Your task to perform on an android device: choose inbox layout in the gmail app Image 0: 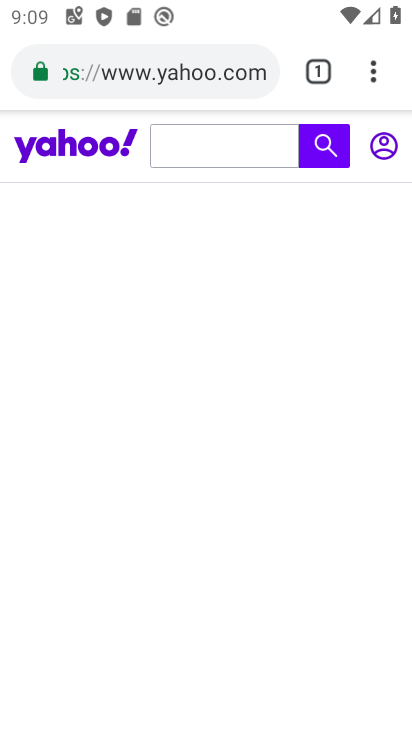
Step 0: press back button
Your task to perform on an android device: choose inbox layout in the gmail app Image 1: 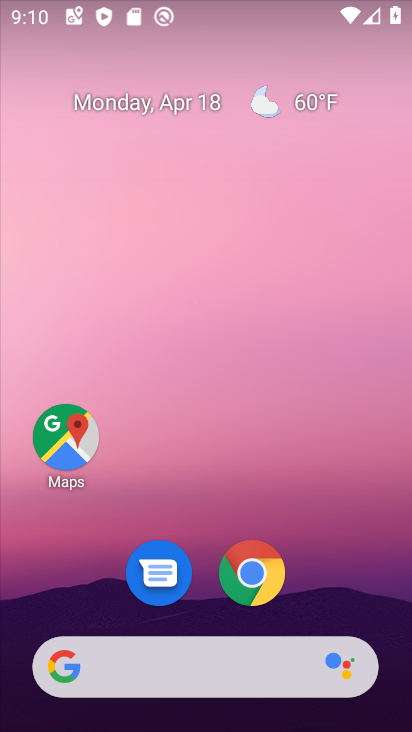
Step 1: drag from (211, 720) to (210, 113)
Your task to perform on an android device: choose inbox layout in the gmail app Image 2: 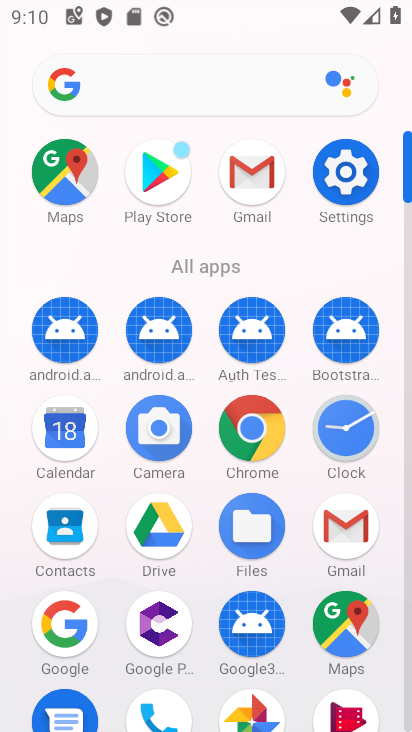
Step 2: click (347, 526)
Your task to perform on an android device: choose inbox layout in the gmail app Image 3: 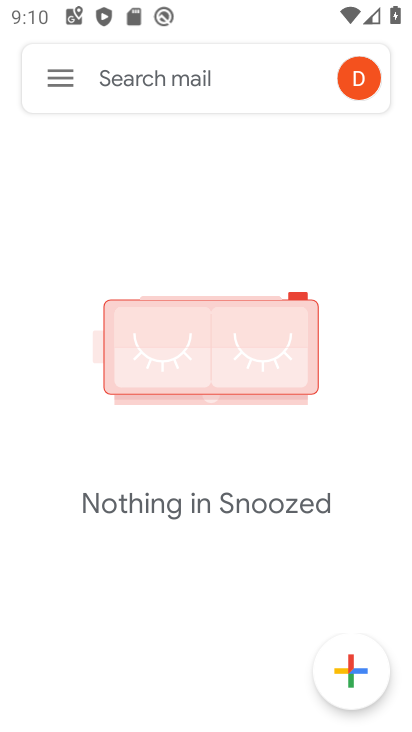
Step 3: click (68, 72)
Your task to perform on an android device: choose inbox layout in the gmail app Image 4: 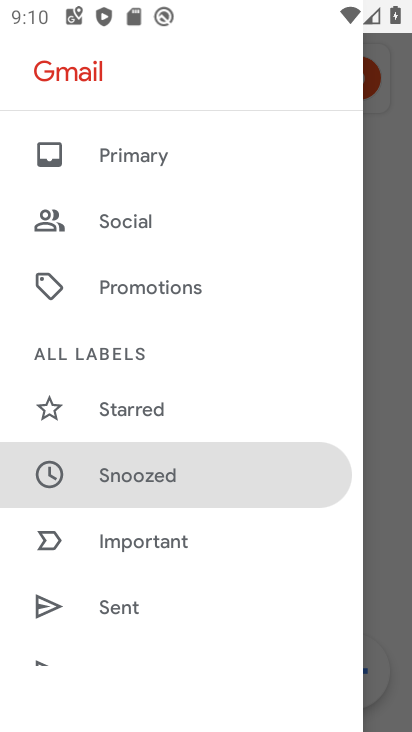
Step 4: drag from (151, 595) to (157, 201)
Your task to perform on an android device: choose inbox layout in the gmail app Image 5: 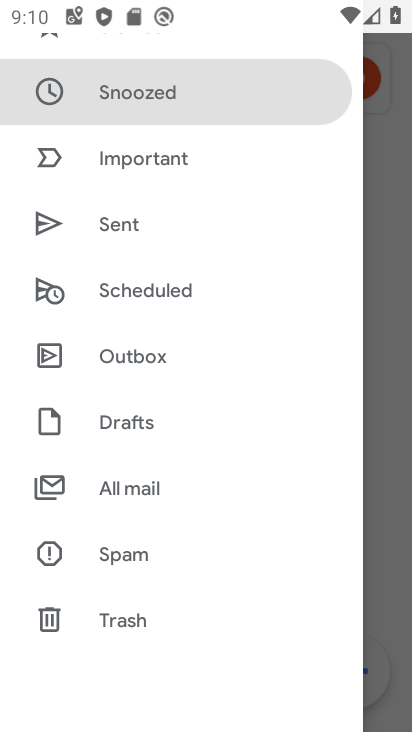
Step 5: drag from (200, 598) to (205, 280)
Your task to perform on an android device: choose inbox layout in the gmail app Image 6: 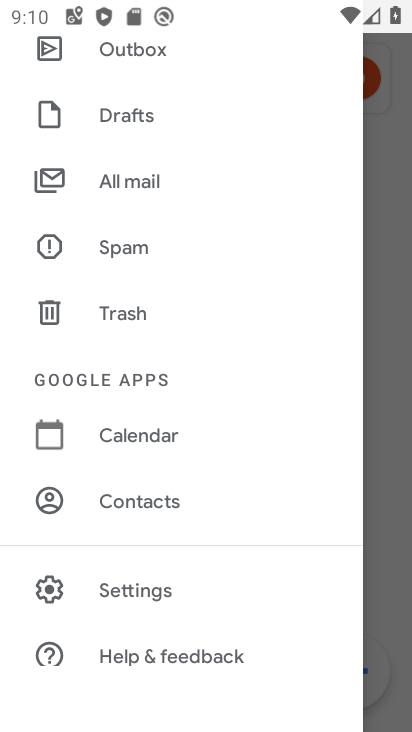
Step 6: click (136, 590)
Your task to perform on an android device: choose inbox layout in the gmail app Image 7: 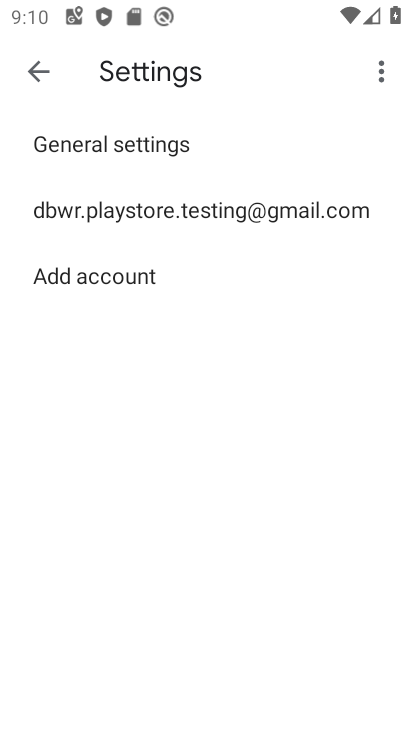
Step 7: click (218, 208)
Your task to perform on an android device: choose inbox layout in the gmail app Image 8: 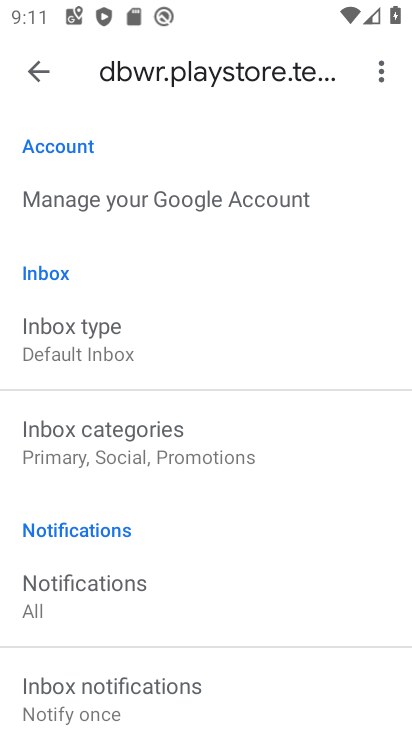
Step 8: click (80, 336)
Your task to perform on an android device: choose inbox layout in the gmail app Image 9: 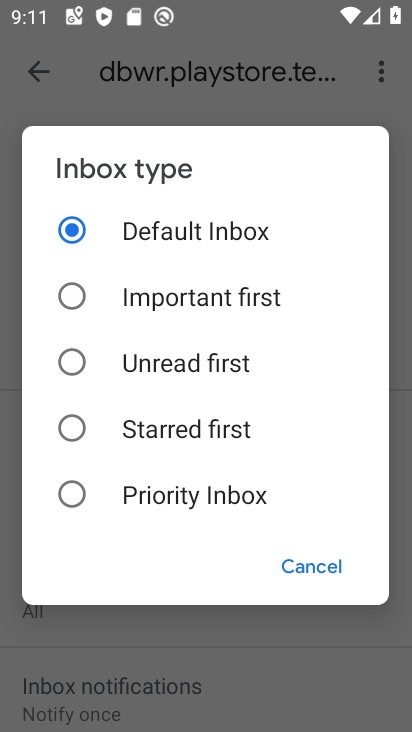
Step 9: click (73, 358)
Your task to perform on an android device: choose inbox layout in the gmail app Image 10: 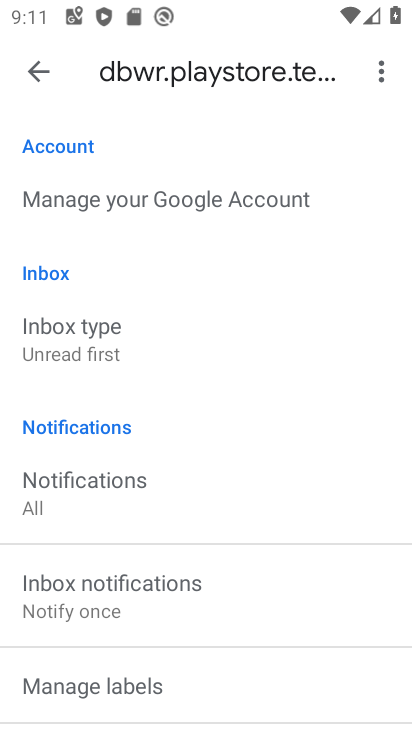
Step 10: task complete